Your task to perform on an android device: Open battery settings Image 0: 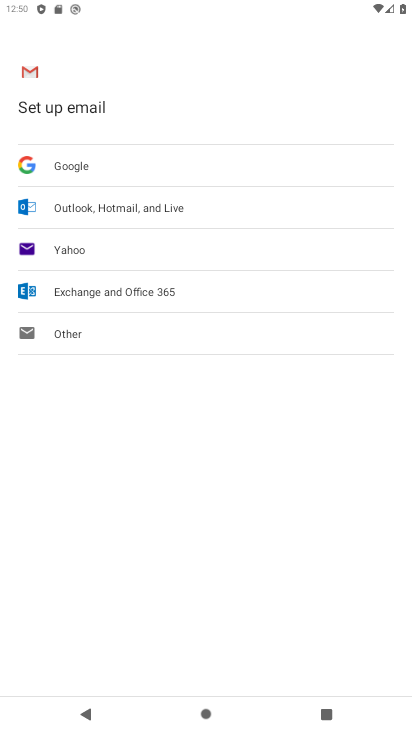
Step 0: press home button
Your task to perform on an android device: Open battery settings Image 1: 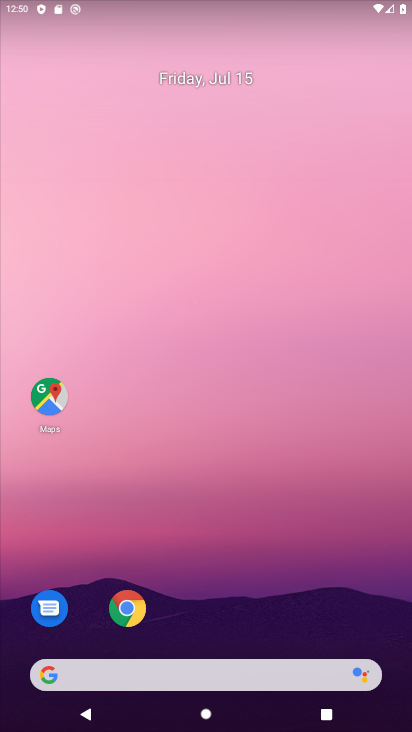
Step 1: drag from (267, 588) to (239, 12)
Your task to perform on an android device: Open battery settings Image 2: 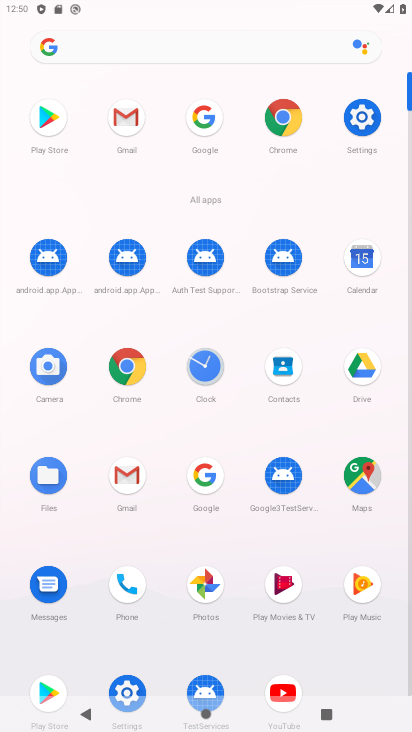
Step 2: click (134, 685)
Your task to perform on an android device: Open battery settings Image 3: 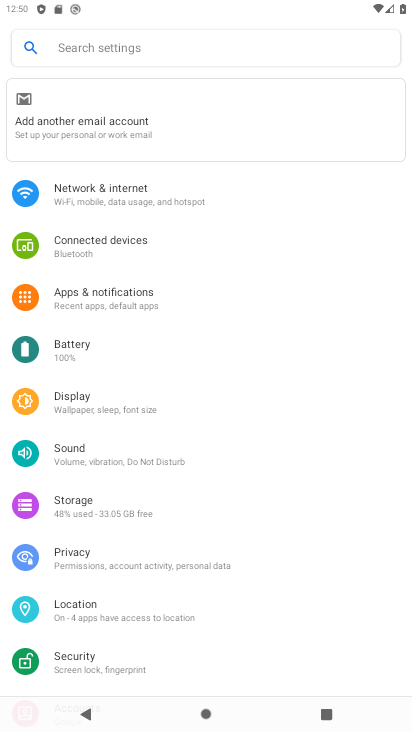
Step 3: click (99, 352)
Your task to perform on an android device: Open battery settings Image 4: 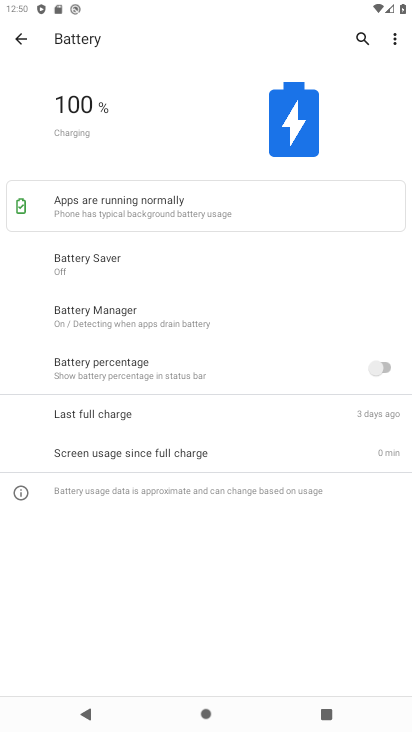
Step 4: task complete